Your task to perform on an android device: install app "Adobe Acrobat Reader" Image 0: 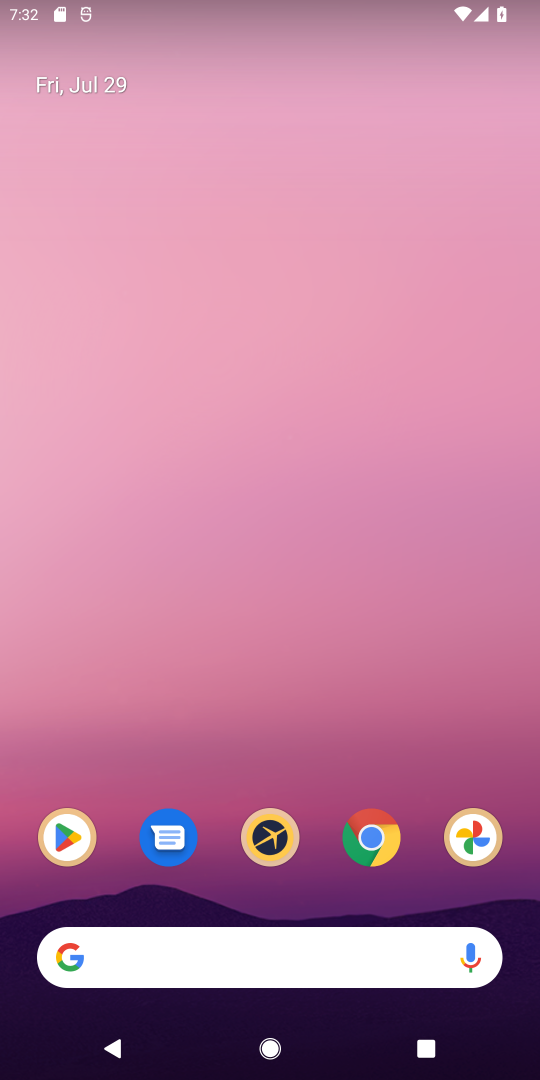
Step 0: click (56, 827)
Your task to perform on an android device: install app "Adobe Acrobat Reader" Image 1: 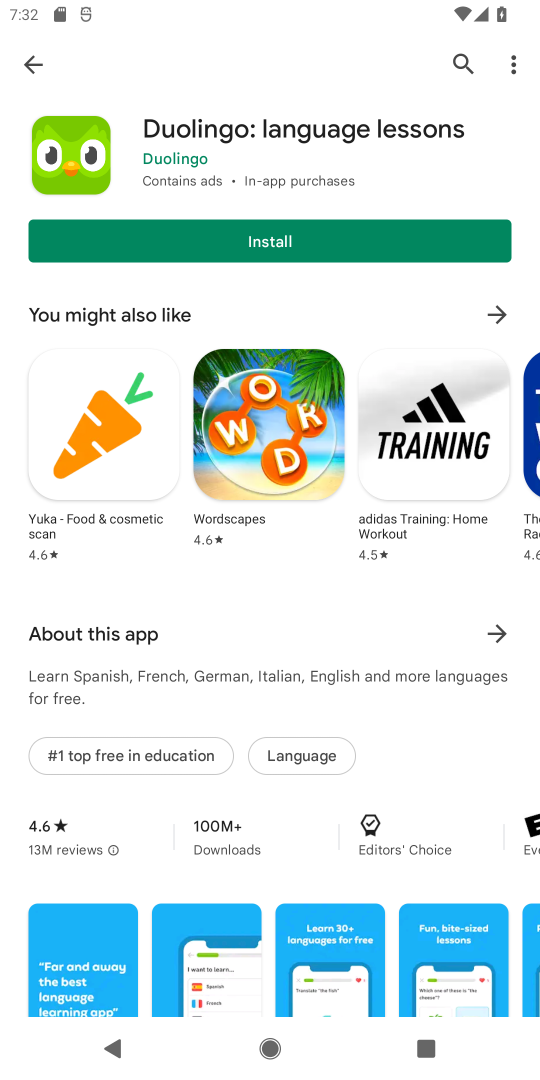
Step 1: click (463, 59)
Your task to perform on an android device: install app "Adobe Acrobat Reader" Image 2: 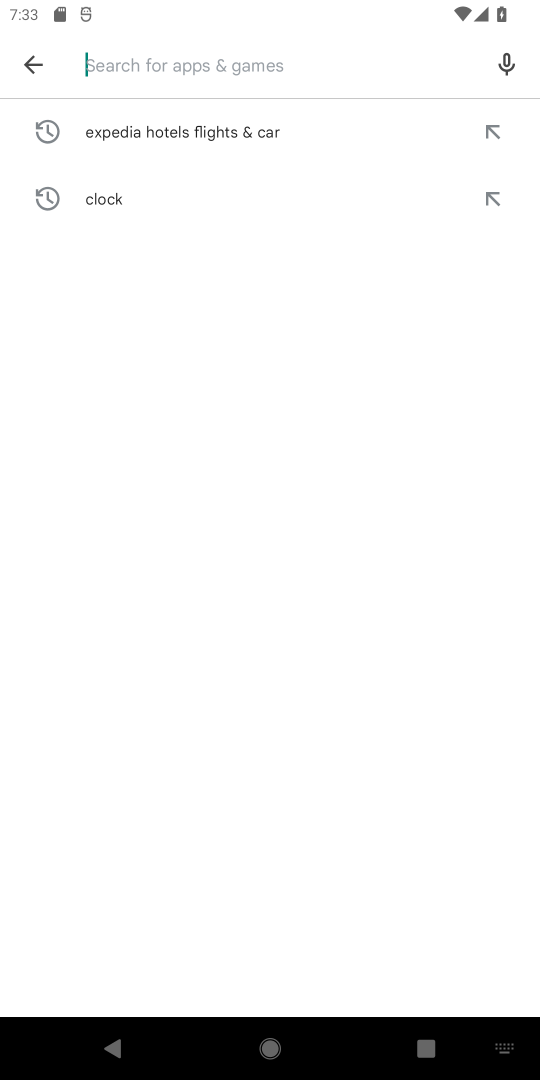
Step 2: type "Adobe Acrobat Reader"
Your task to perform on an android device: install app "Adobe Acrobat Reader" Image 3: 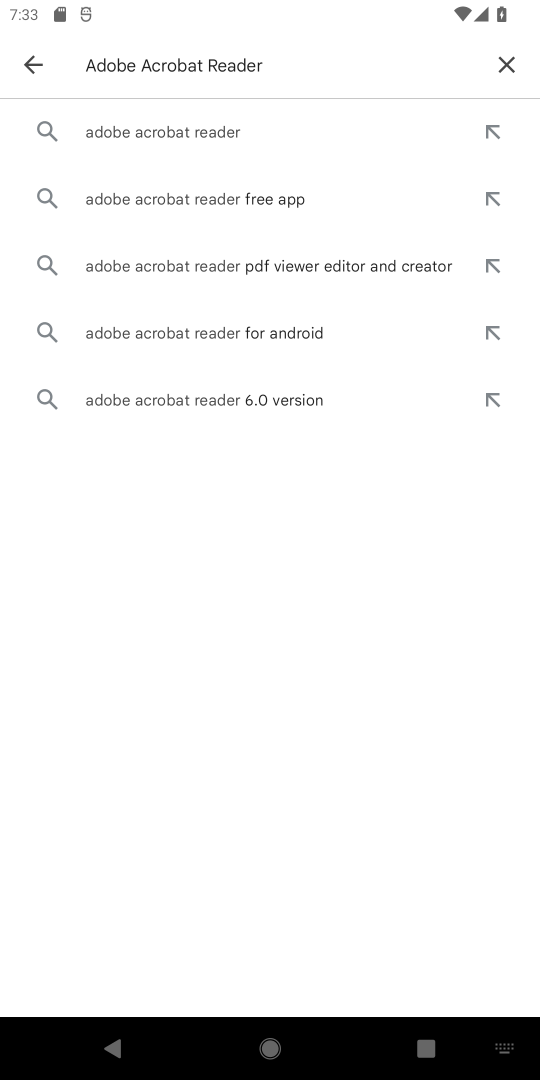
Step 3: click (208, 131)
Your task to perform on an android device: install app "Adobe Acrobat Reader" Image 4: 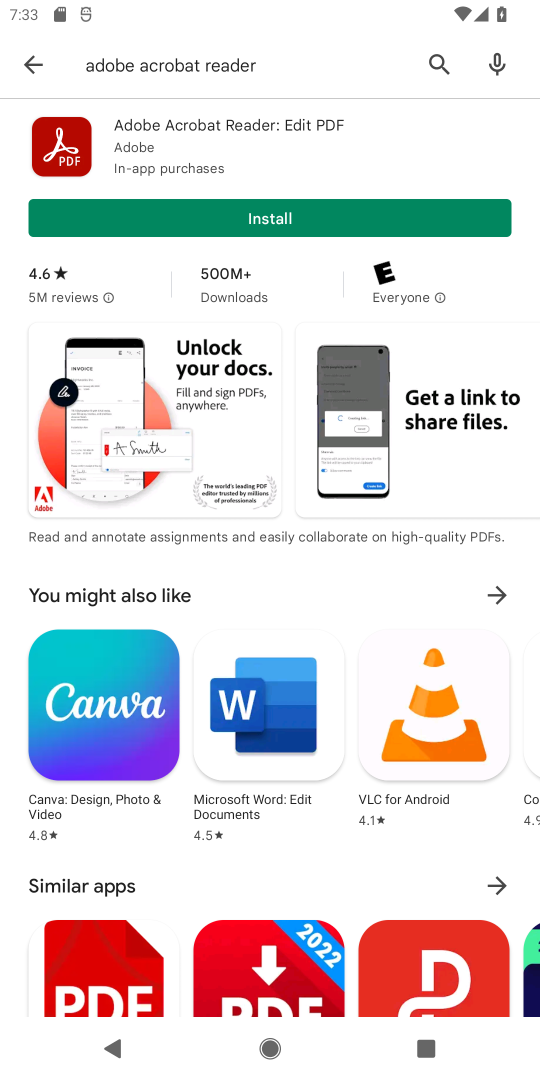
Step 4: click (272, 228)
Your task to perform on an android device: install app "Adobe Acrobat Reader" Image 5: 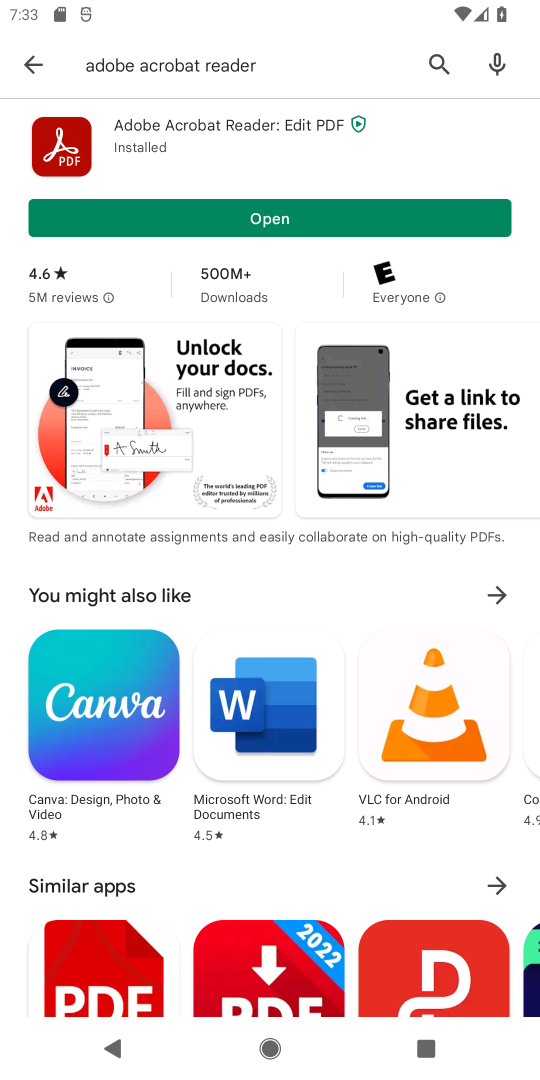
Step 5: task complete